Your task to perform on an android device: Open accessibility settings Image 0: 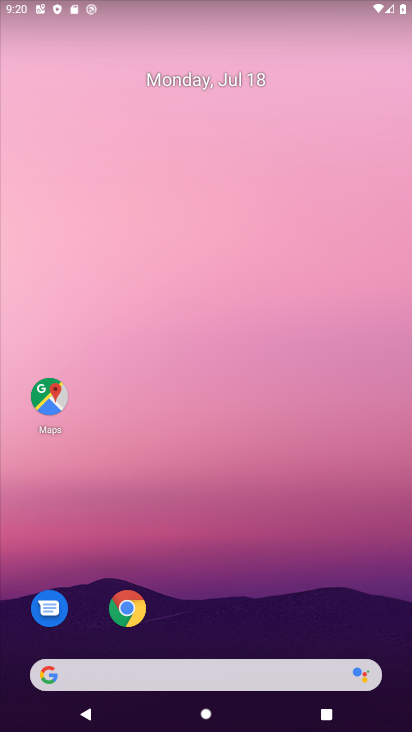
Step 0: drag from (227, 623) to (130, 4)
Your task to perform on an android device: Open accessibility settings Image 1: 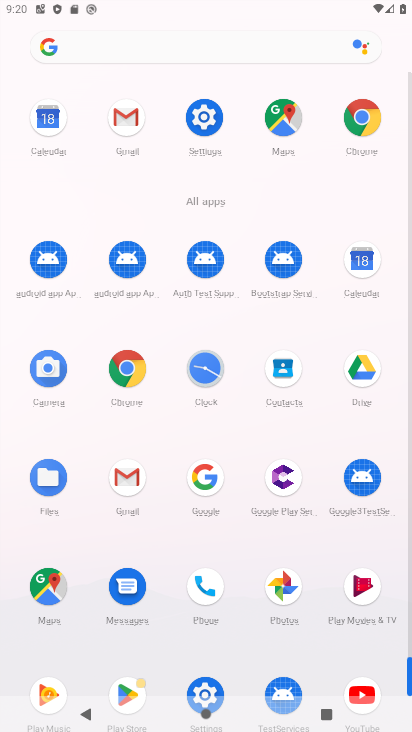
Step 1: click (204, 685)
Your task to perform on an android device: Open accessibility settings Image 2: 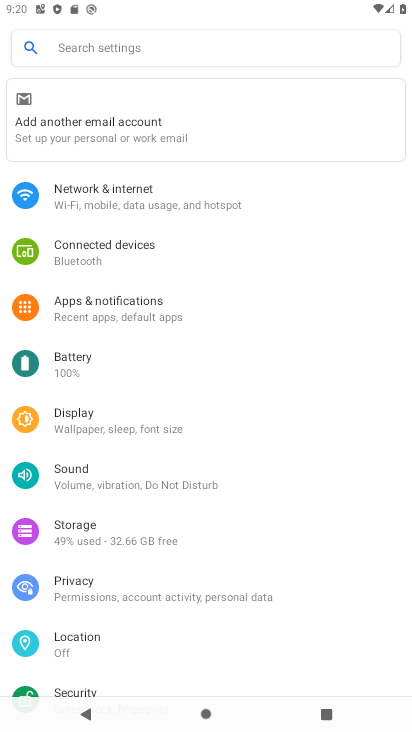
Step 2: drag from (120, 613) to (129, 344)
Your task to perform on an android device: Open accessibility settings Image 3: 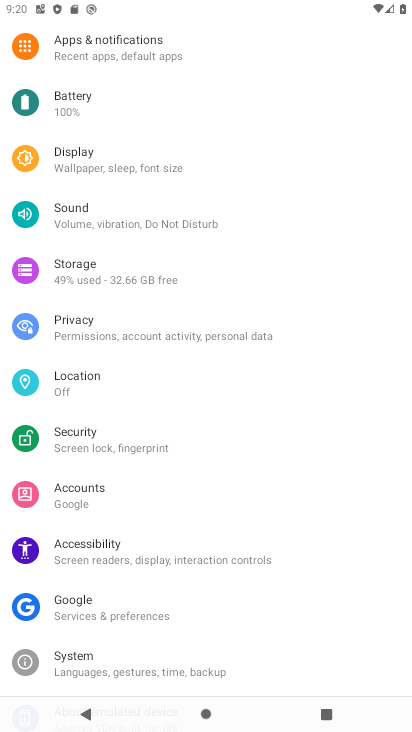
Step 3: click (109, 552)
Your task to perform on an android device: Open accessibility settings Image 4: 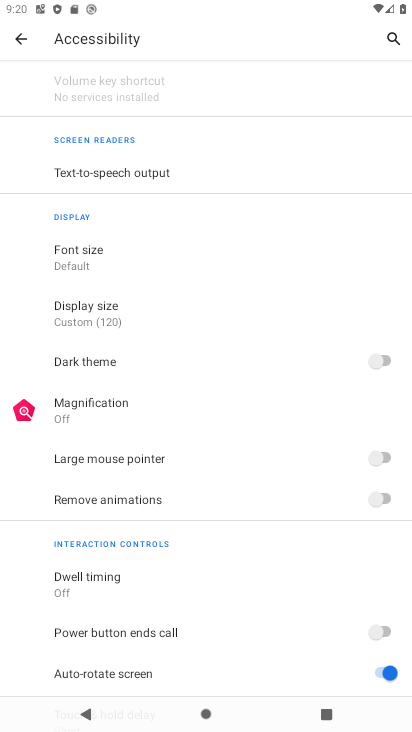
Step 4: task complete